Your task to perform on an android device: turn on wifi Image 0: 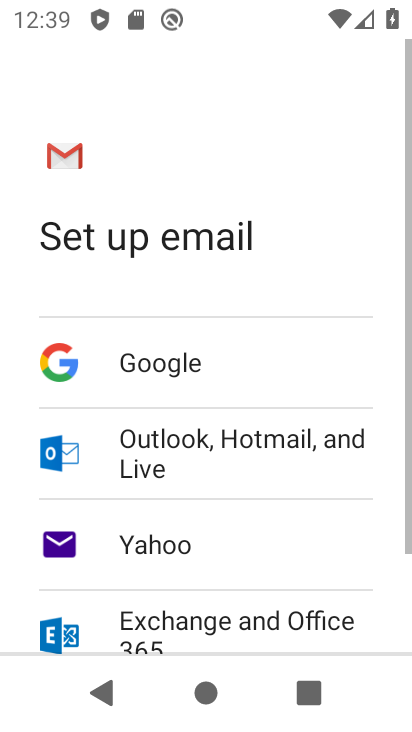
Step 0: press home button
Your task to perform on an android device: turn on wifi Image 1: 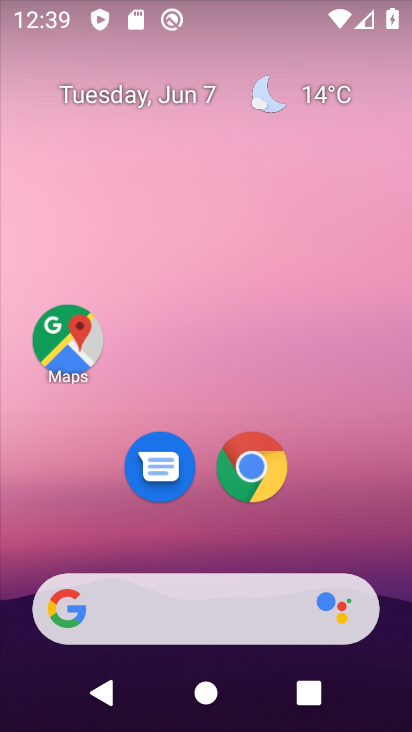
Step 1: drag from (217, 590) to (237, 109)
Your task to perform on an android device: turn on wifi Image 2: 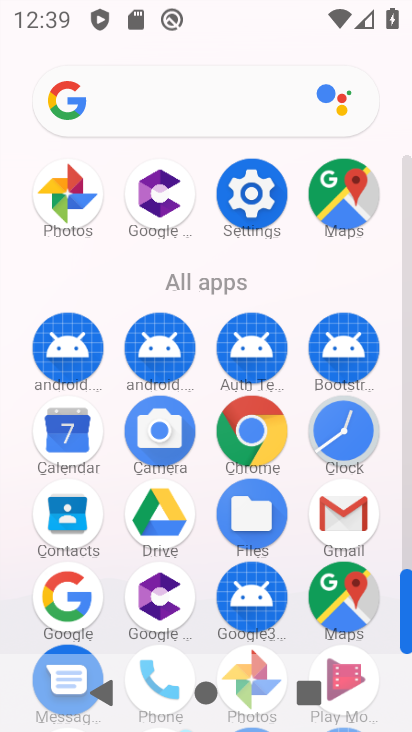
Step 2: click (252, 175)
Your task to perform on an android device: turn on wifi Image 3: 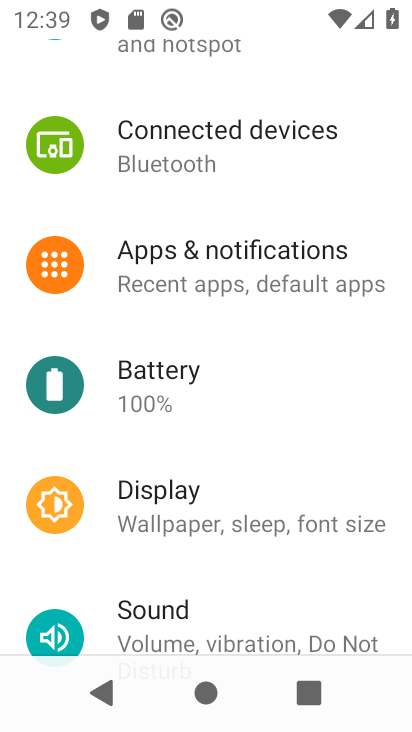
Step 3: drag from (166, 165) to (157, 488)
Your task to perform on an android device: turn on wifi Image 4: 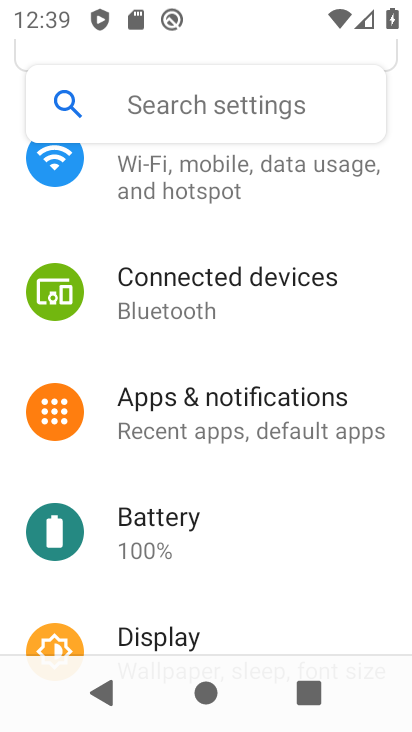
Step 4: click (168, 186)
Your task to perform on an android device: turn on wifi Image 5: 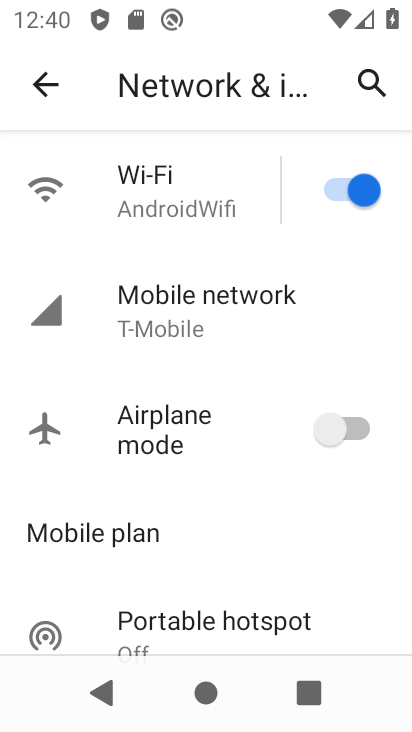
Step 5: task complete